Your task to perform on an android device: check data usage Image 0: 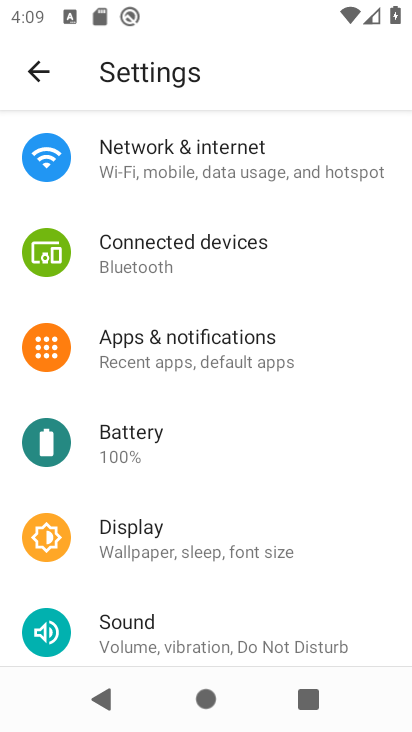
Step 0: click (161, 145)
Your task to perform on an android device: check data usage Image 1: 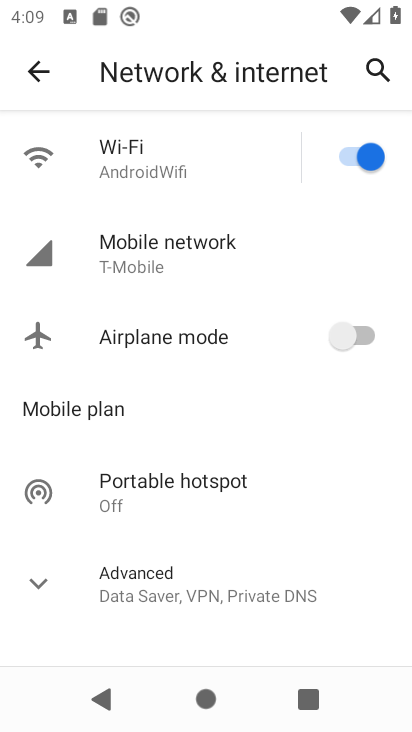
Step 1: click (143, 253)
Your task to perform on an android device: check data usage Image 2: 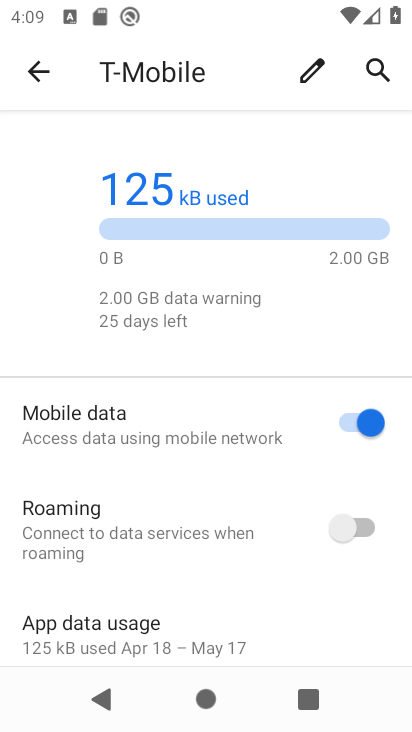
Step 2: task complete